Your task to perform on an android device: turn off wifi Image 0: 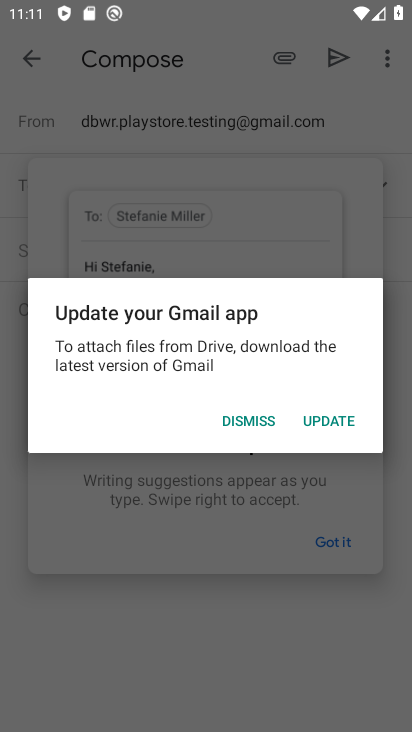
Step 0: press home button
Your task to perform on an android device: turn off wifi Image 1: 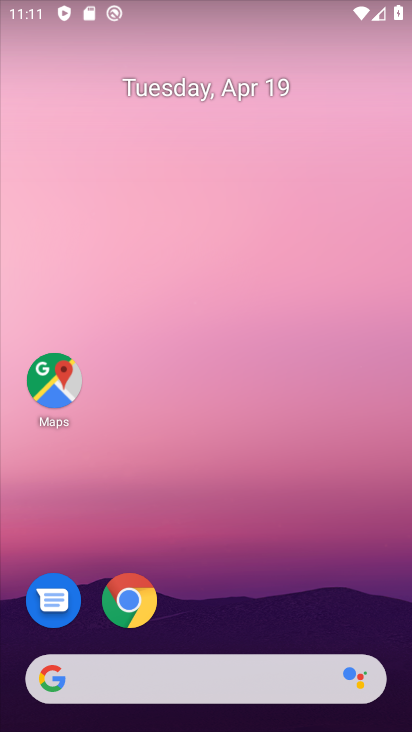
Step 1: drag from (350, 476) to (367, 7)
Your task to perform on an android device: turn off wifi Image 2: 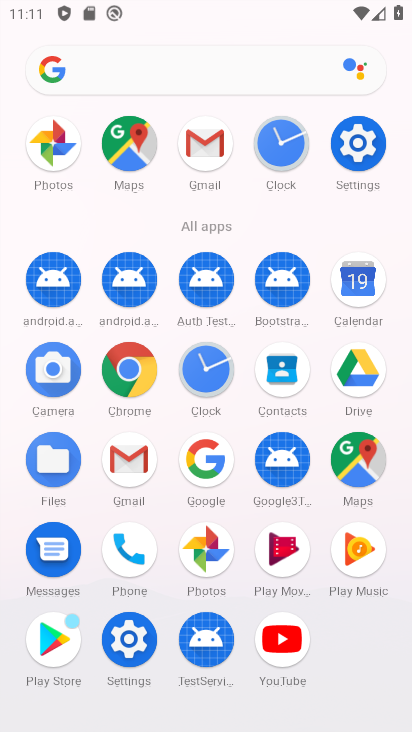
Step 2: click (356, 145)
Your task to perform on an android device: turn off wifi Image 3: 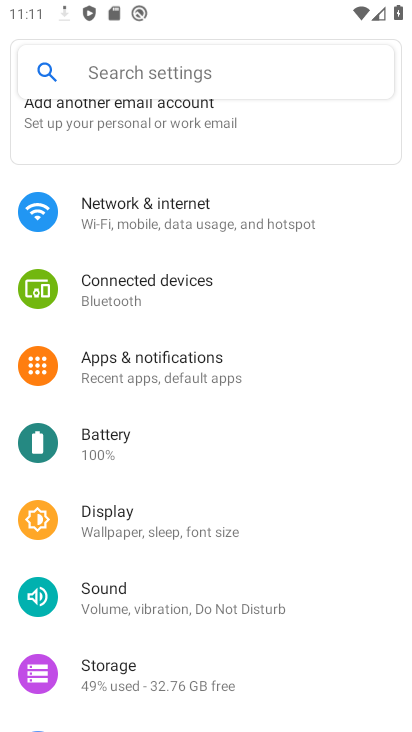
Step 3: click (148, 213)
Your task to perform on an android device: turn off wifi Image 4: 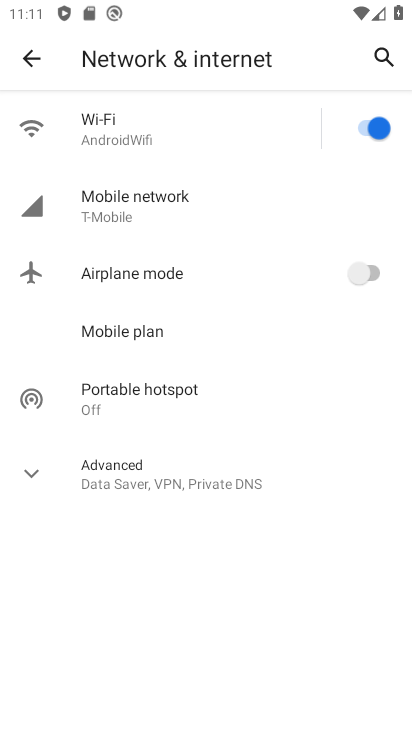
Step 4: click (377, 127)
Your task to perform on an android device: turn off wifi Image 5: 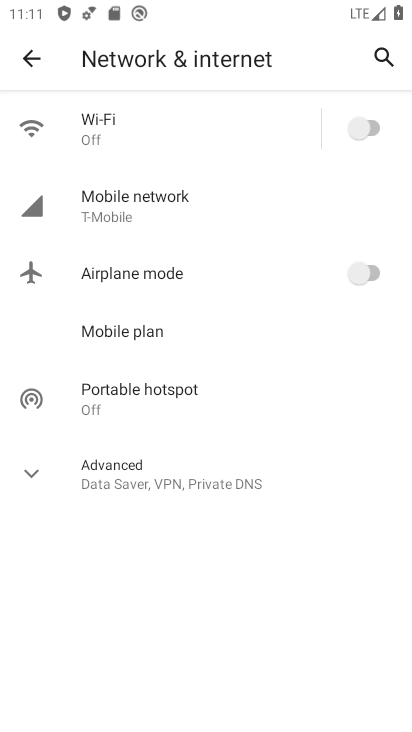
Step 5: task complete